Your task to perform on an android device: check out phone information Image 0: 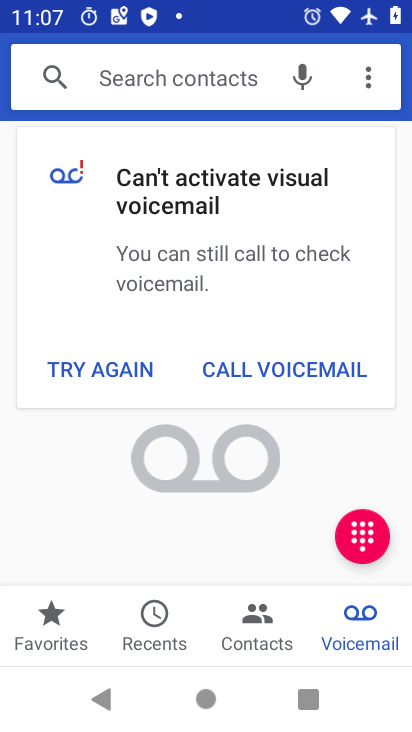
Step 0: press back button
Your task to perform on an android device: check out phone information Image 1: 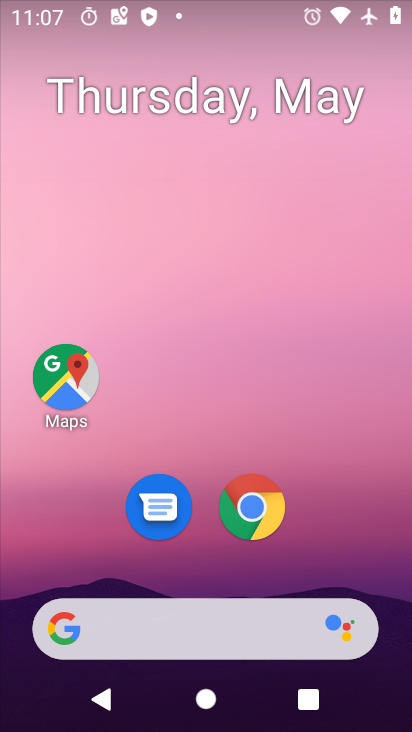
Step 1: drag from (361, 560) to (244, 17)
Your task to perform on an android device: check out phone information Image 2: 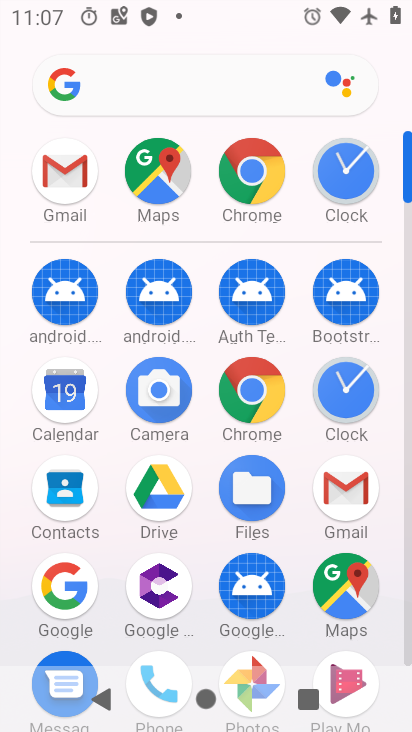
Step 2: drag from (11, 589) to (5, 272)
Your task to perform on an android device: check out phone information Image 3: 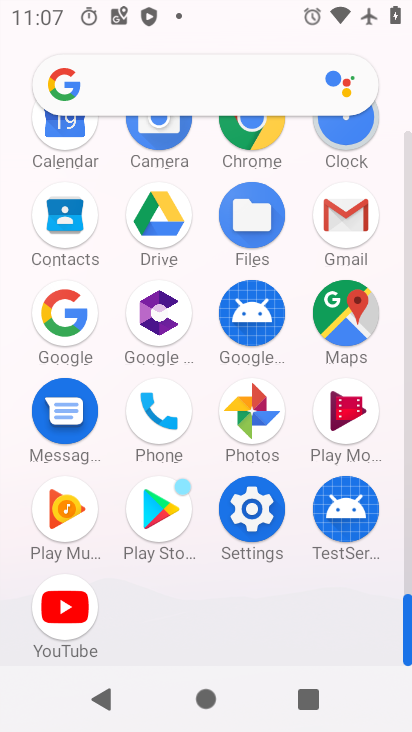
Step 3: click (246, 505)
Your task to perform on an android device: check out phone information Image 4: 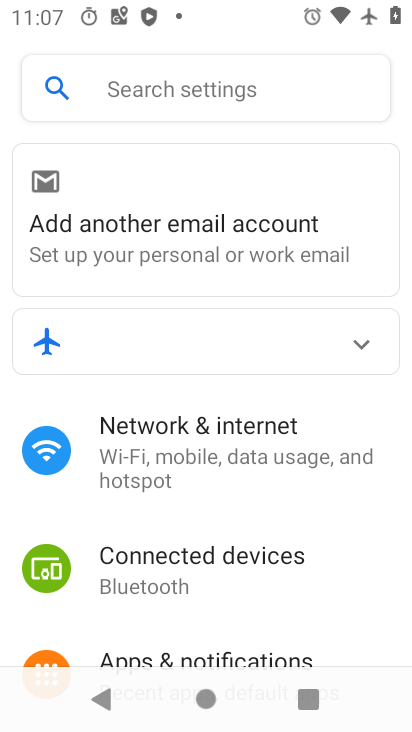
Step 4: drag from (309, 587) to (284, 112)
Your task to perform on an android device: check out phone information Image 5: 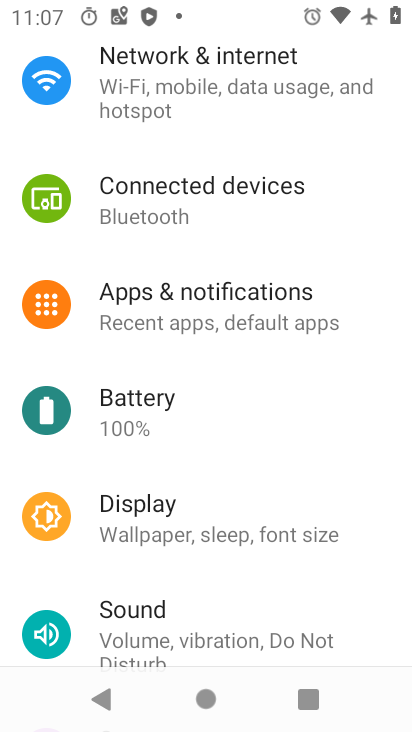
Step 5: drag from (247, 614) to (254, 160)
Your task to perform on an android device: check out phone information Image 6: 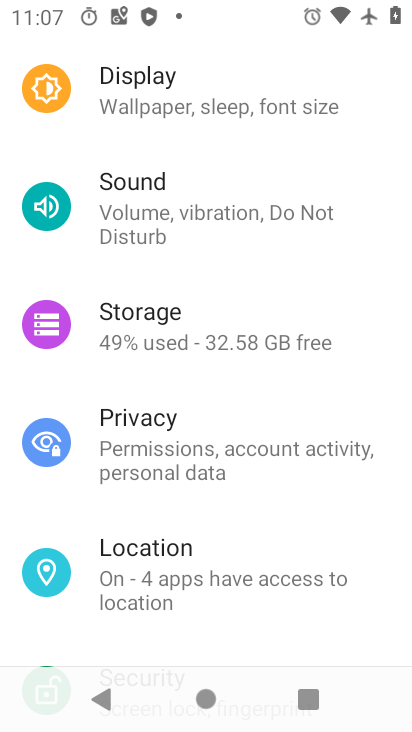
Step 6: drag from (283, 587) to (282, 110)
Your task to perform on an android device: check out phone information Image 7: 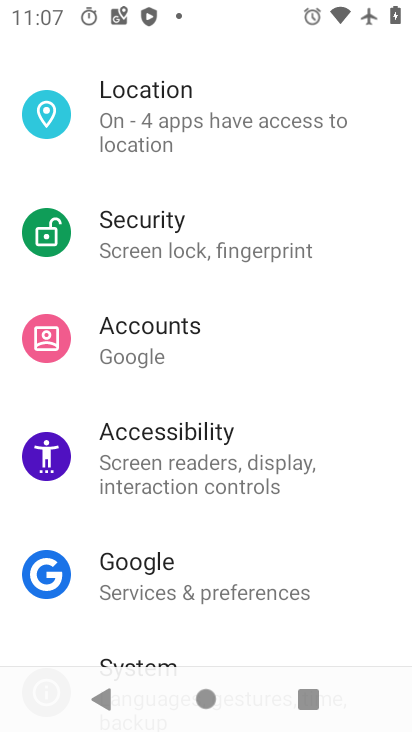
Step 7: drag from (214, 568) to (210, 133)
Your task to perform on an android device: check out phone information Image 8: 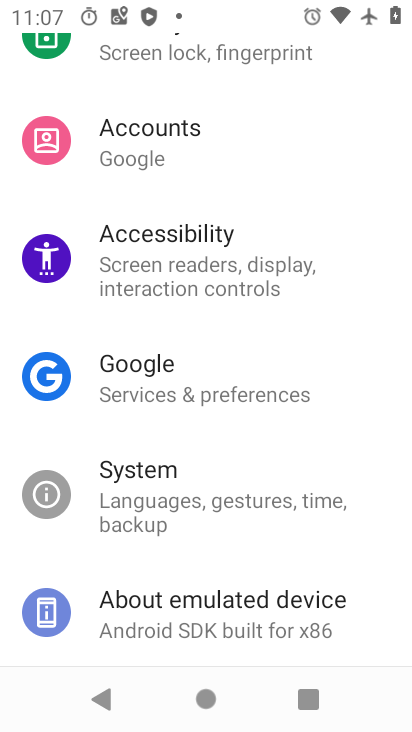
Step 8: click (213, 607)
Your task to perform on an android device: check out phone information Image 9: 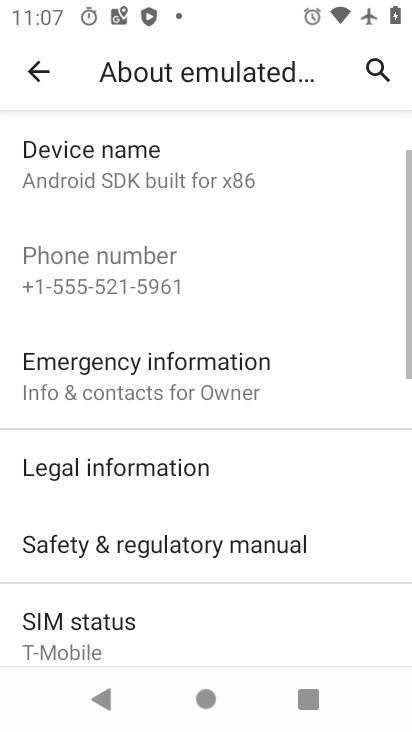
Step 9: task complete